Your task to perform on an android device: Open notification settings Image 0: 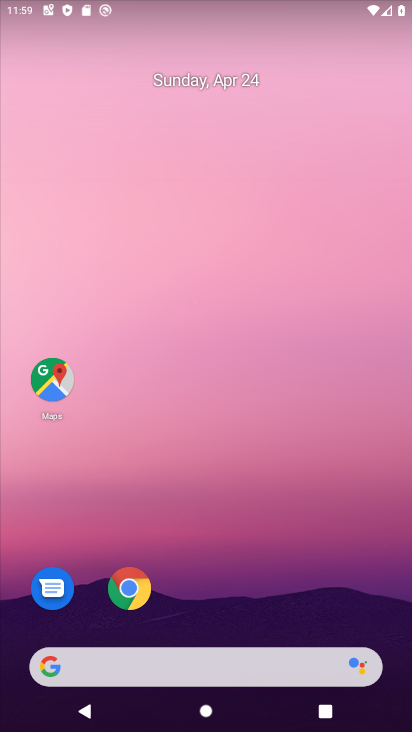
Step 0: drag from (186, 633) to (313, 4)
Your task to perform on an android device: Open notification settings Image 1: 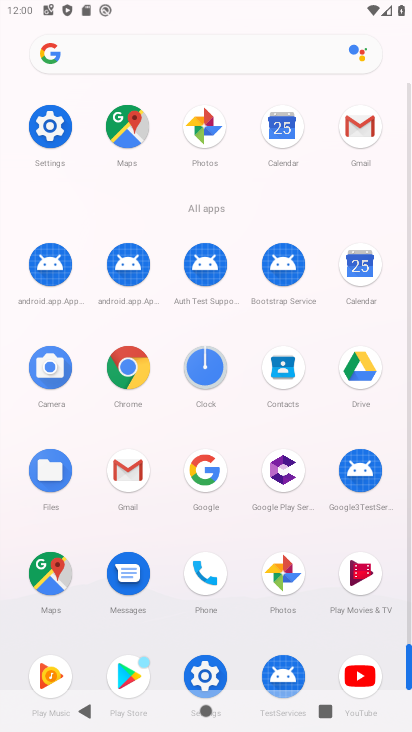
Step 1: click (212, 676)
Your task to perform on an android device: Open notification settings Image 2: 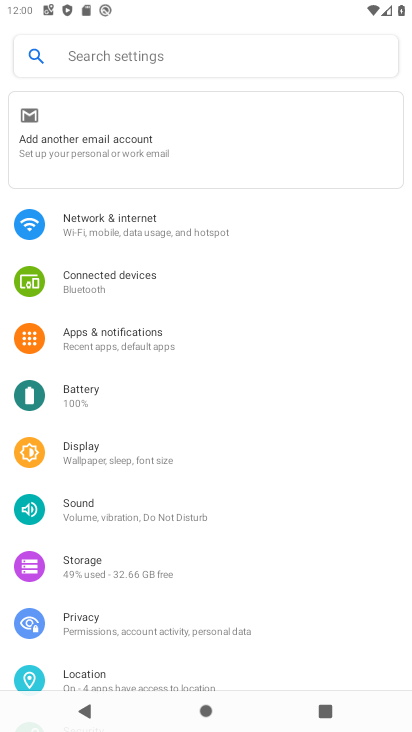
Step 2: drag from (122, 616) to (194, 382)
Your task to perform on an android device: Open notification settings Image 3: 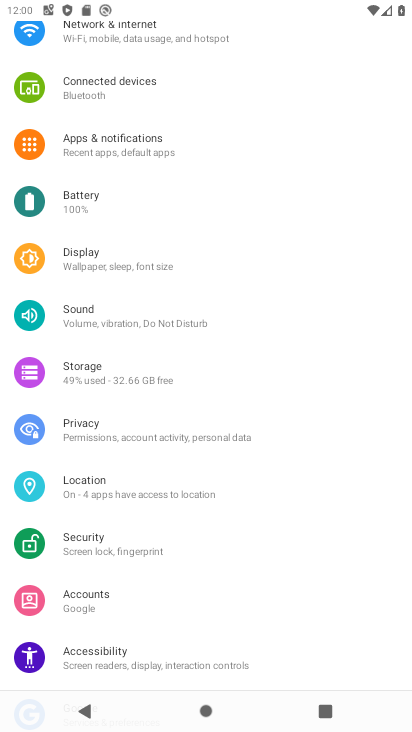
Step 3: click (155, 160)
Your task to perform on an android device: Open notification settings Image 4: 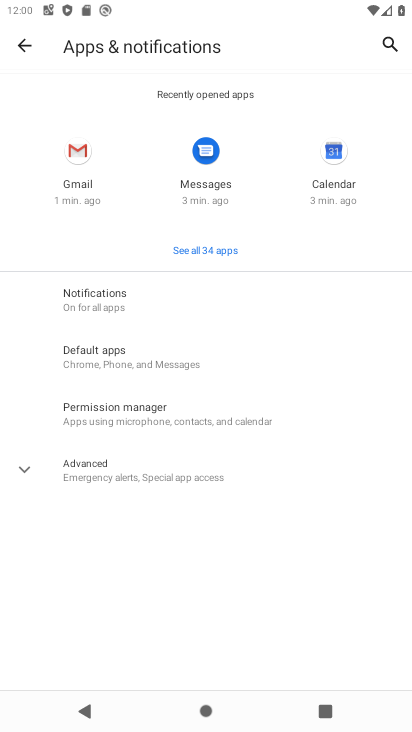
Step 4: click (203, 477)
Your task to perform on an android device: Open notification settings Image 5: 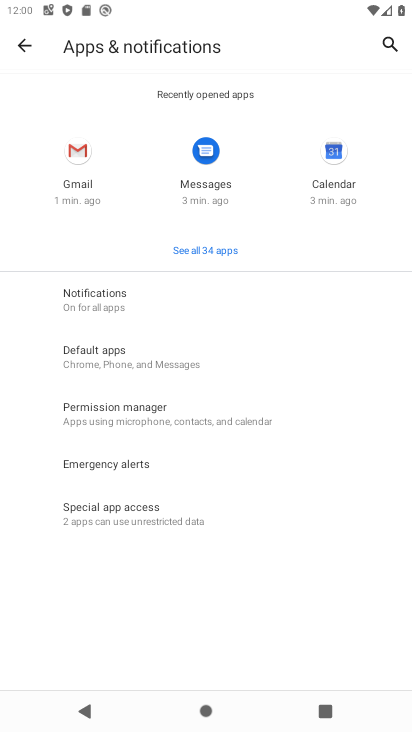
Step 5: click (147, 322)
Your task to perform on an android device: Open notification settings Image 6: 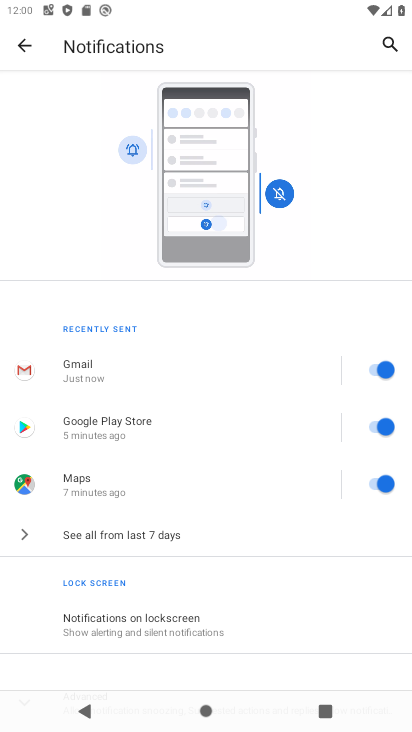
Step 6: task complete